Your task to perform on an android device: Open settings on Google Maps Image 0: 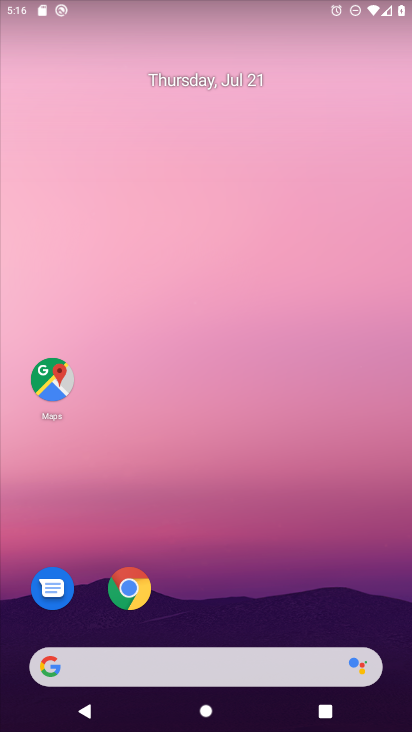
Step 0: drag from (399, 622) to (279, 178)
Your task to perform on an android device: Open settings on Google Maps Image 1: 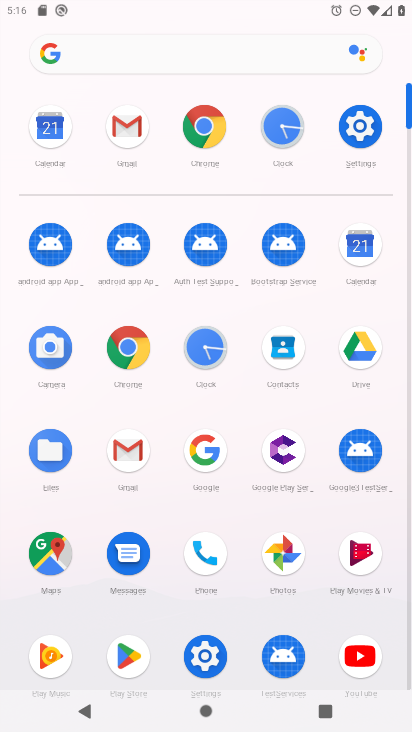
Step 1: click (42, 553)
Your task to perform on an android device: Open settings on Google Maps Image 2: 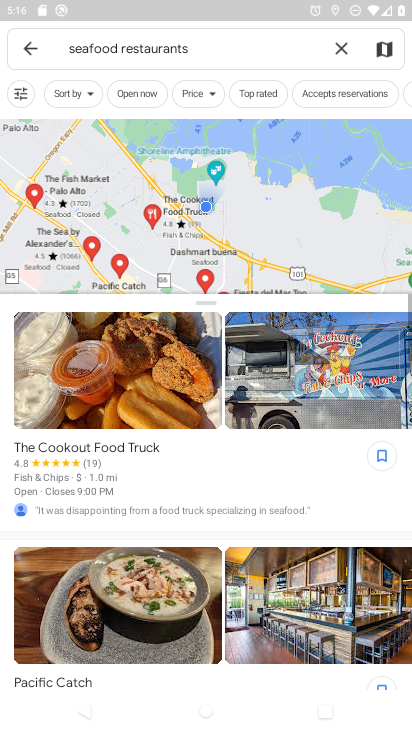
Step 2: click (46, 61)
Your task to perform on an android device: Open settings on Google Maps Image 3: 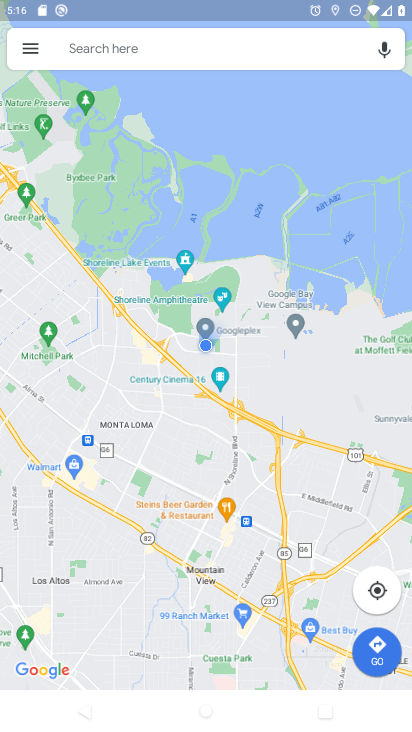
Step 3: click (28, 47)
Your task to perform on an android device: Open settings on Google Maps Image 4: 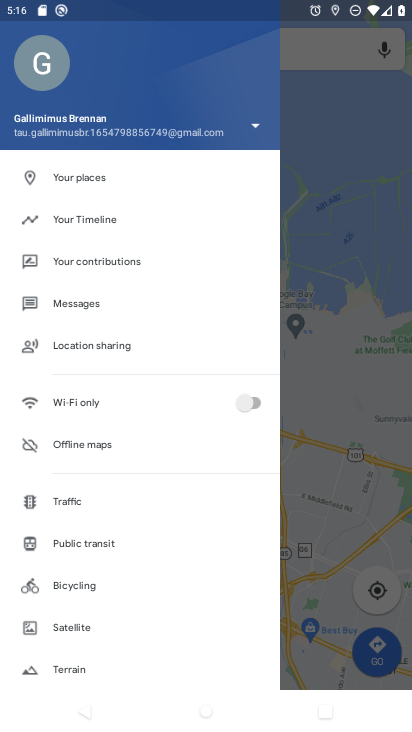
Step 4: drag from (148, 587) to (109, 258)
Your task to perform on an android device: Open settings on Google Maps Image 5: 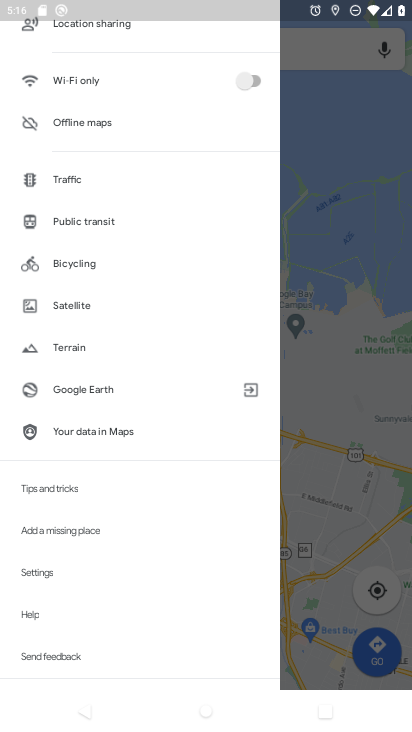
Step 5: click (95, 574)
Your task to perform on an android device: Open settings on Google Maps Image 6: 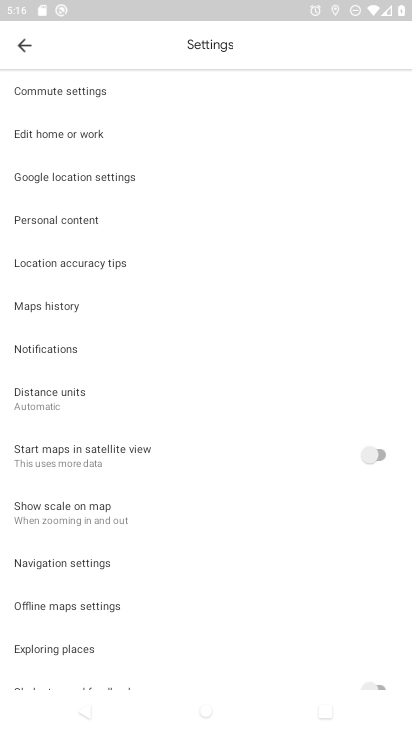
Step 6: task complete